Your task to perform on an android device: change notification settings in the gmail app Image 0: 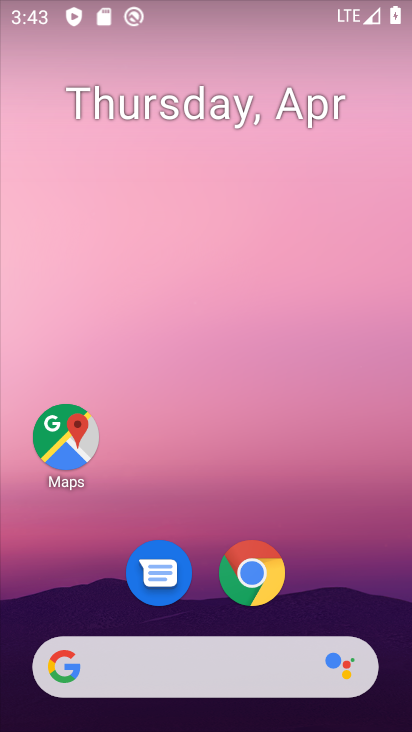
Step 0: drag from (345, 617) to (259, 56)
Your task to perform on an android device: change notification settings in the gmail app Image 1: 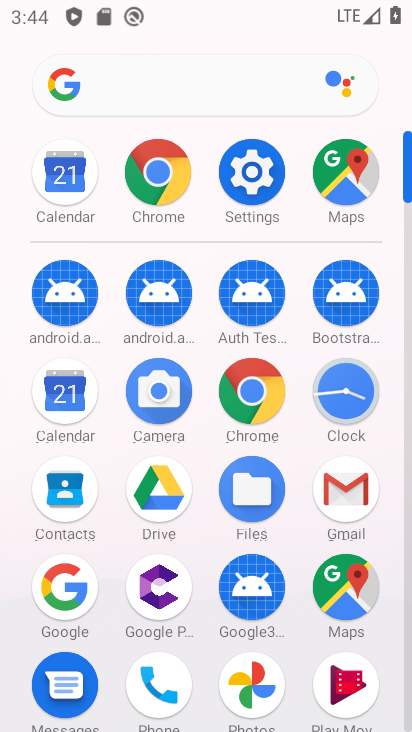
Step 1: click (362, 476)
Your task to perform on an android device: change notification settings in the gmail app Image 2: 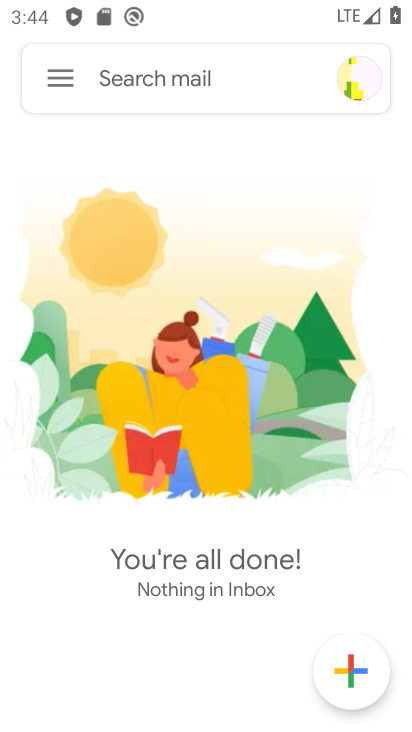
Step 2: click (40, 92)
Your task to perform on an android device: change notification settings in the gmail app Image 3: 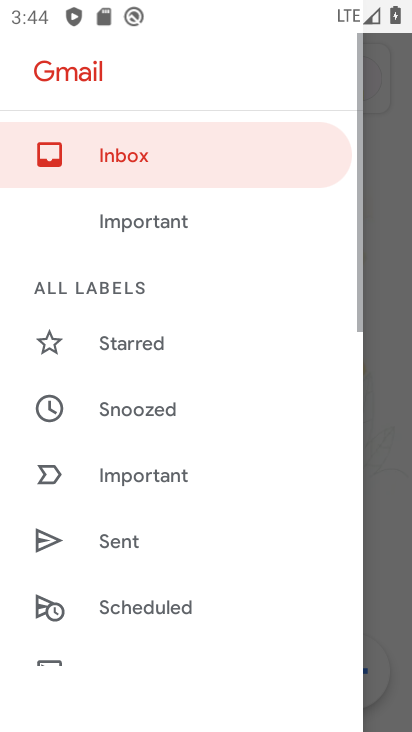
Step 3: drag from (172, 631) to (217, 110)
Your task to perform on an android device: change notification settings in the gmail app Image 4: 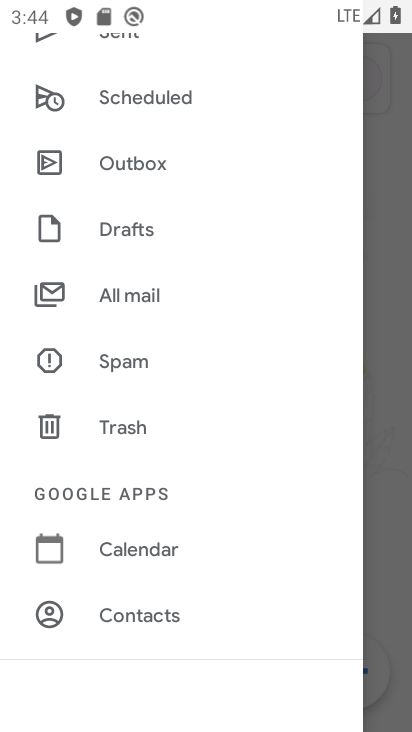
Step 4: drag from (148, 622) to (249, 89)
Your task to perform on an android device: change notification settings in the gmail app Image 5: 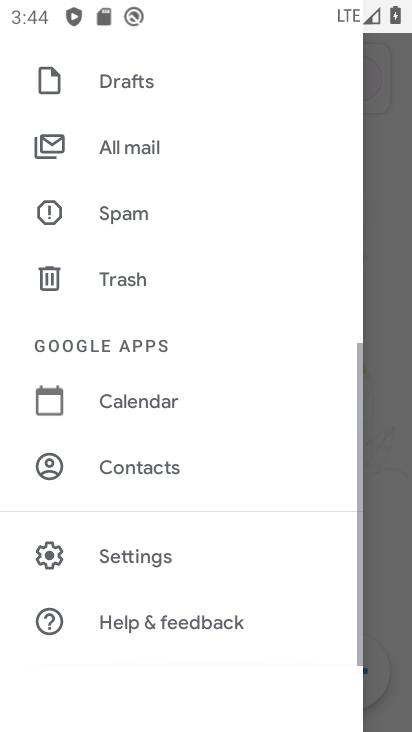
Step 5: click (134, 554)
Your task to perform on an android device: change notification settings in the gmail app Image 6: 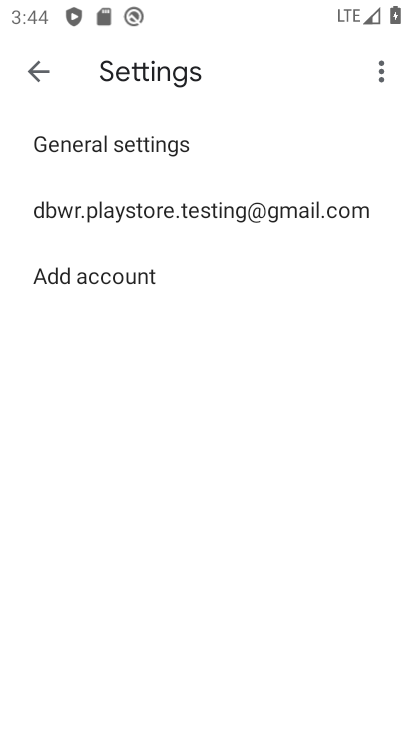
Step 6: click (168, 223)
Your task to perform on an android device: change notification settings in the gmail app Image 7: 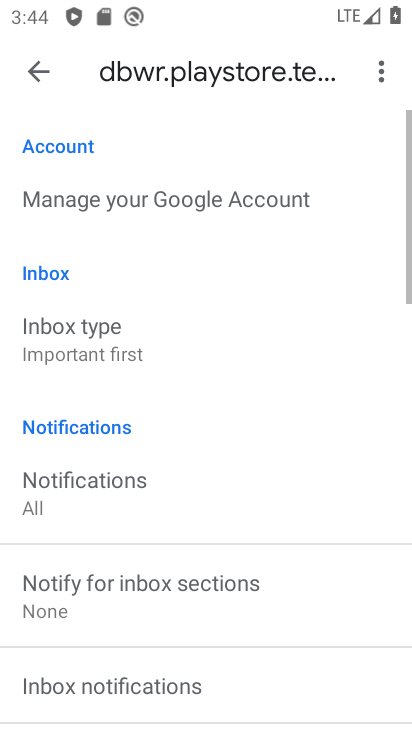
Step 7: click (171, 503)
Your task to perform on an android device: change notification settings in the gmail app Image 8: 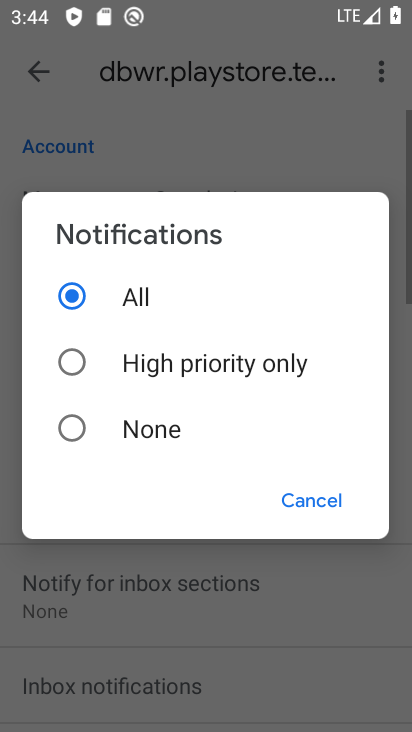
Step 8: click (158, 426)
Your task to perform on an android device: change notification settings in the gmail app Image 9: 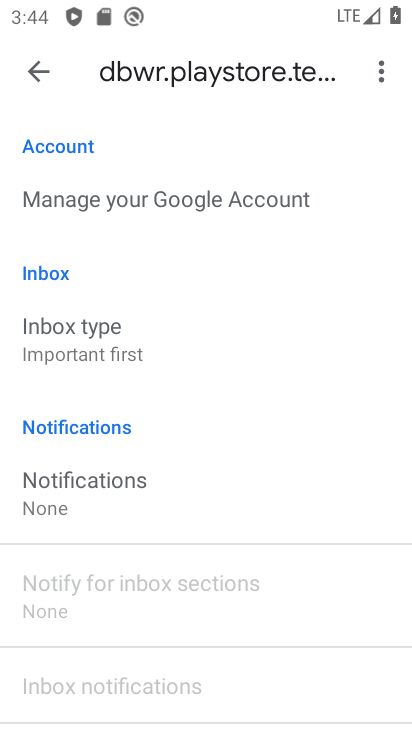
Step 9: task complete